Your task to perform on an android device: Open Maps and search for coffee Image 0: 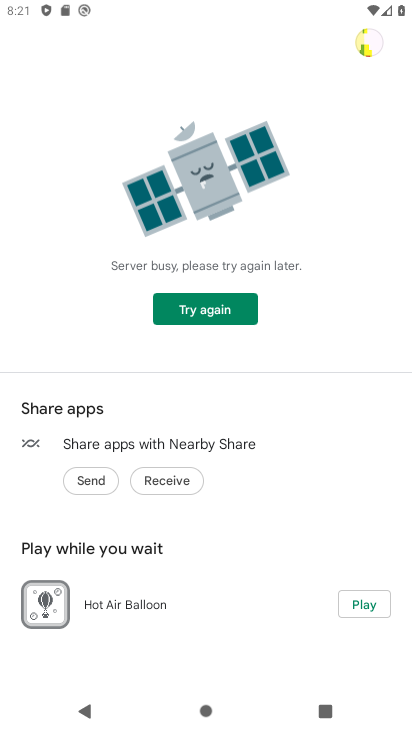
Step 0: press home button
Your task to perform on an android device: Open Maps and search for coffee Image 1: 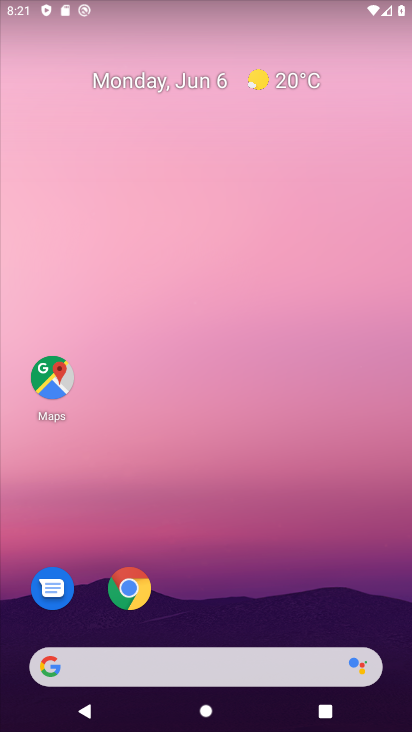
Step 1: drag from (176, 634) to (311, 133)
Your task to perform on an android device: Open Maps and search for coffee Image 2: 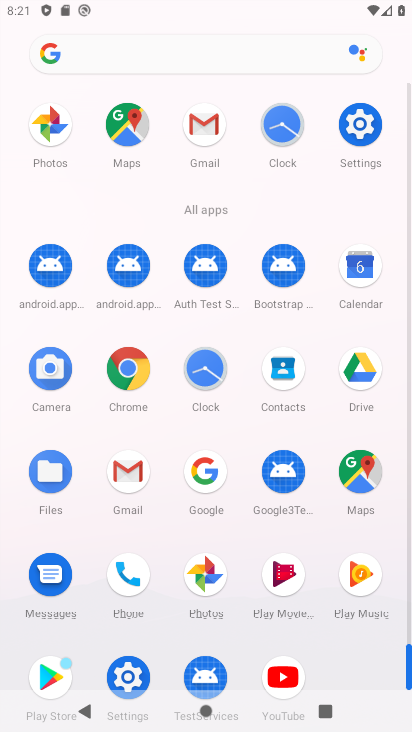
Step 2: click (361, 470)
Your task to perform on an android device: Open Maps and search for coffee Image 3: 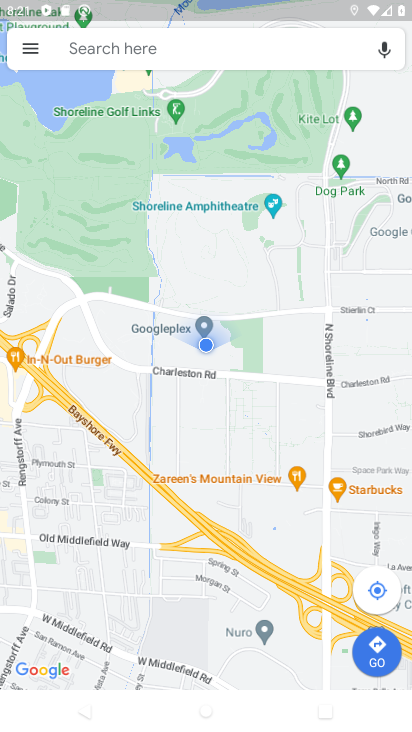
Step 3: click (141, 59)
Your task to perform on an android device: Open Maps and search for coffee Image 4: 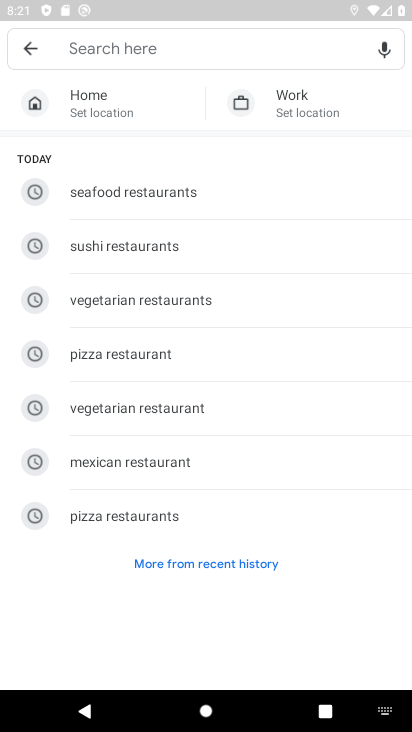
Step 4: type "Coffee "
Your task to perform on an android device: Open Maps and search for coffee Image 5: 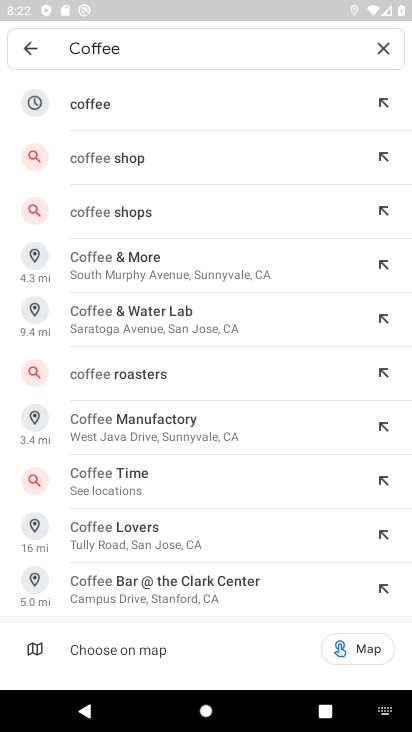
Step 5: click (183, 113)
Your task to perform on an android device: Open Maps and search for coffee Image 6: 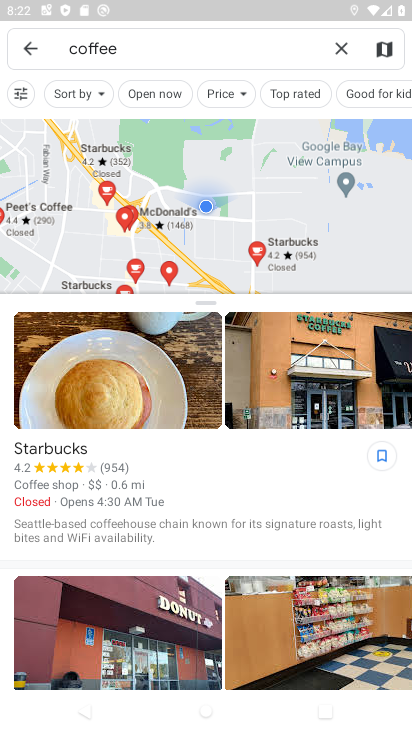
Step 6: task complete